Your task to perform on an android device: turn on improve location accuracy Image 0: 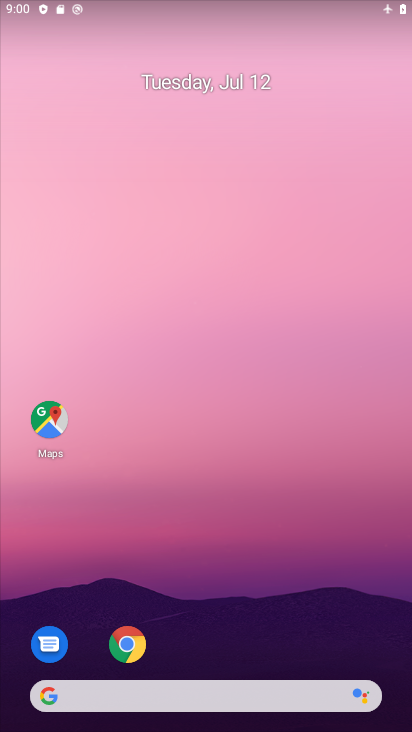
Step 0: drag from (210, 643) to (233, 172)
Your task to perform on an android device: turn on improve location accuracy Image 1: 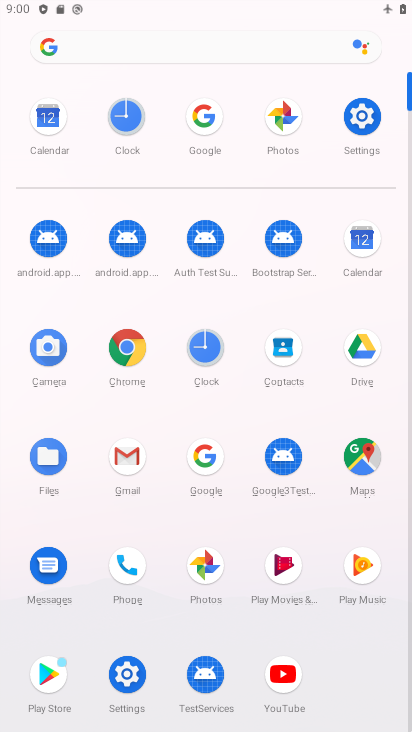
Step 1: click (348, 120)
Your task to perform on an android device: turn on improve location accuracy Image 2: 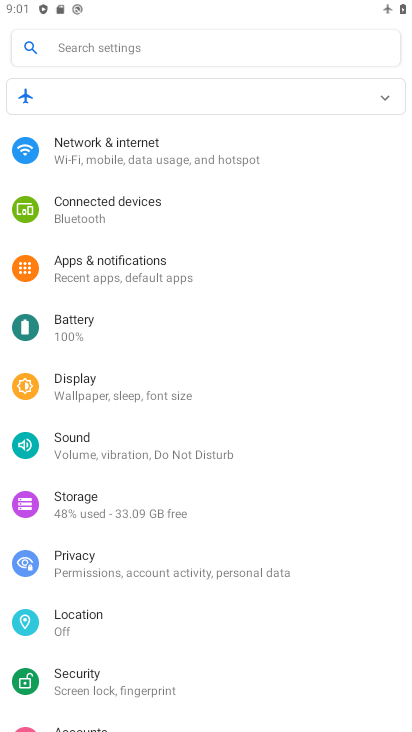
Step 2: click (144, 615)
Your task to perform on an android device: turn on improve location accuracy Image 3: 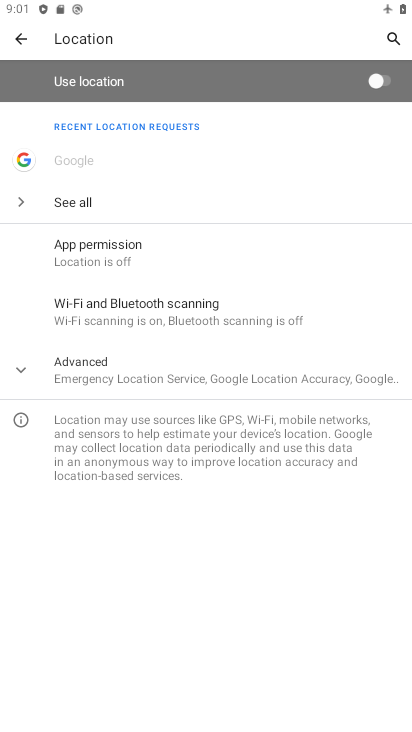
Step 3: click (146, 373)
Your task to perform on an android device: turn on improve location accuracy Image 4: 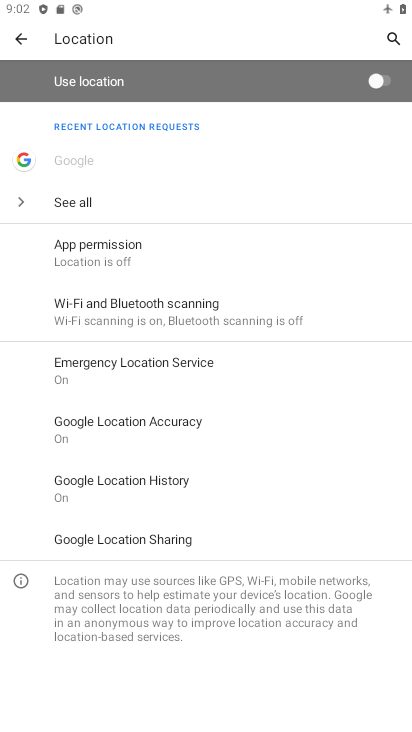
Step 4: click (190, 434)
Your task to perform on an android device: turn on improve location accuracy Image 5: 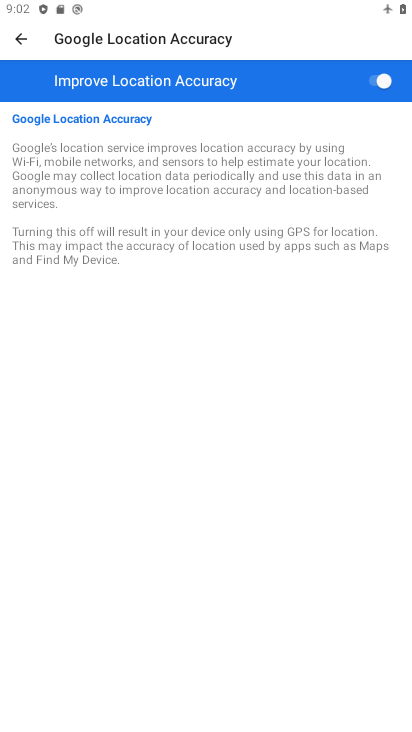
Step 5: task complete